Your task to perform on an android device: Open a new incognito window in Chrome Image 0: 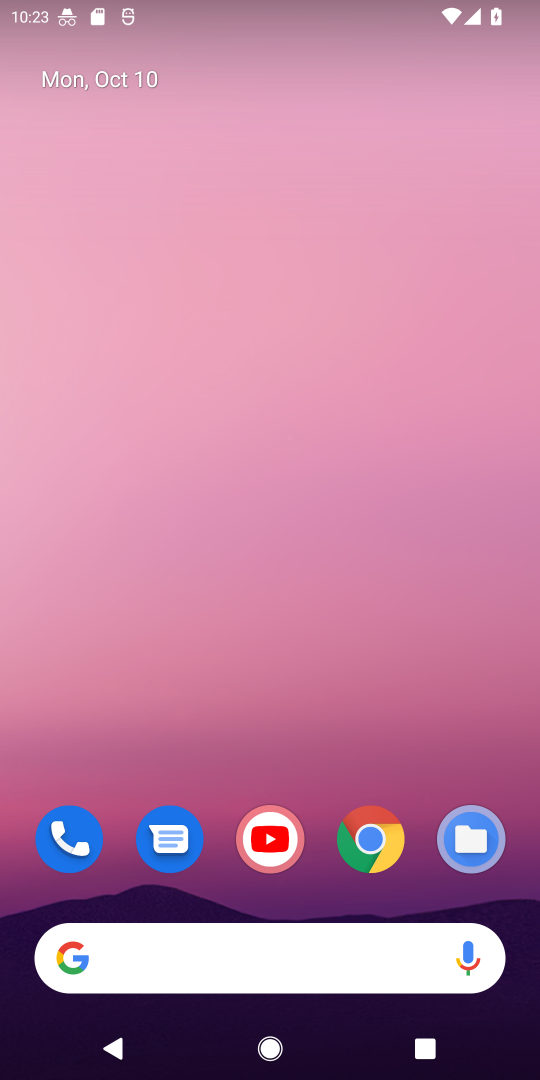
Step 0: drag from (316, 912) to (223, 49)
Your task to perform on an android device: Open a new incognito window in Chrome Image 1: 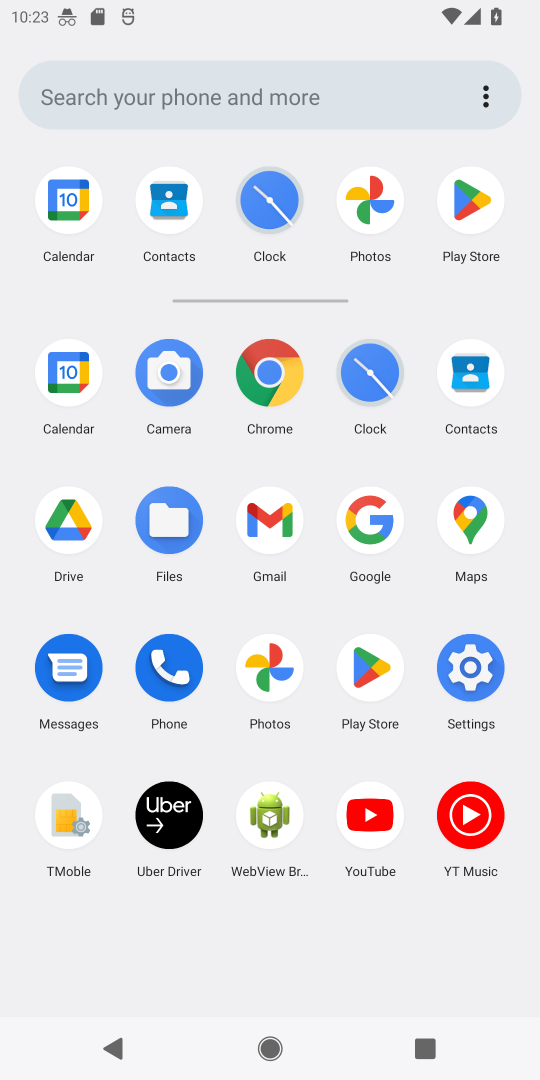
Step 1: click (264, 373)
Your task to perform on an android device: Open a new incognito window in Chrome Image 2: 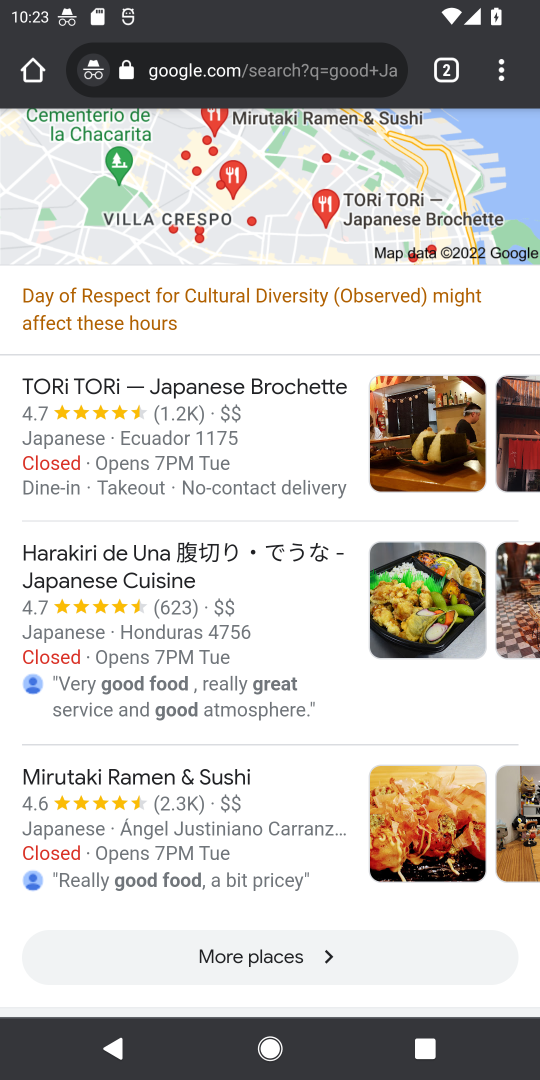
Step 2: click (313, 76)
Your task to perform on an android device: Open a new incognito window in Chrome Image 3: 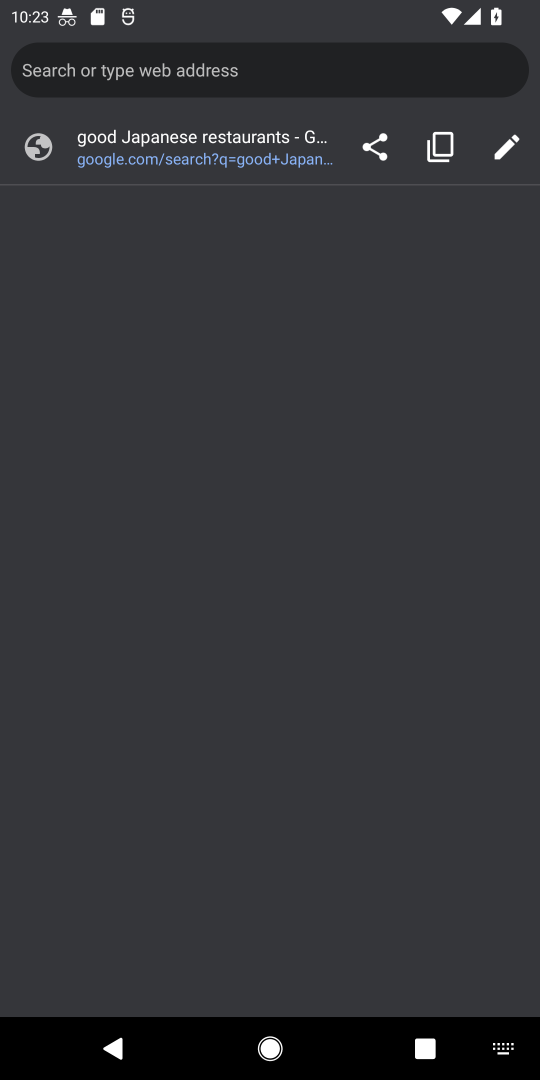
Step 3: task complete